Your task to perform on an android device: Open settings Image 0: 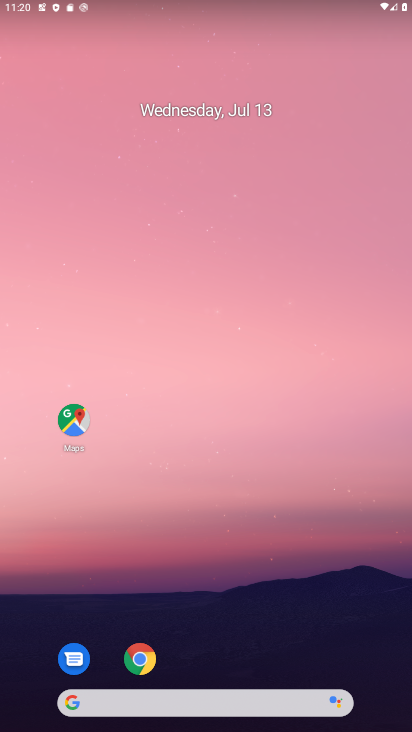
Step 0: drag from (264, 632) to (220, 106)
Your task to perform on an android device: Open settings Image 1: 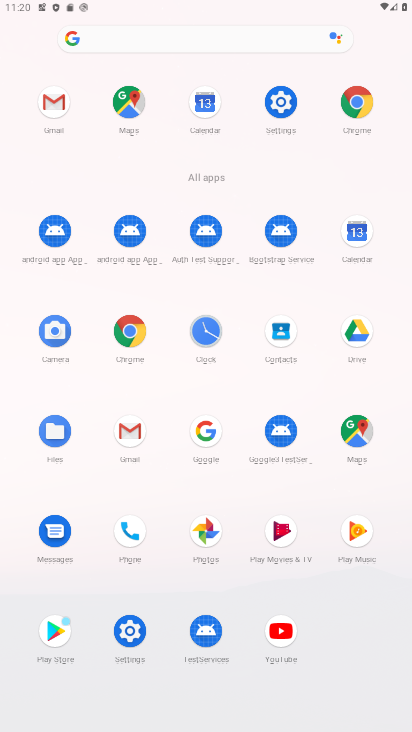
Step 1: click (280, 104)
Your task to perform on an android device: Open settings Image 2: 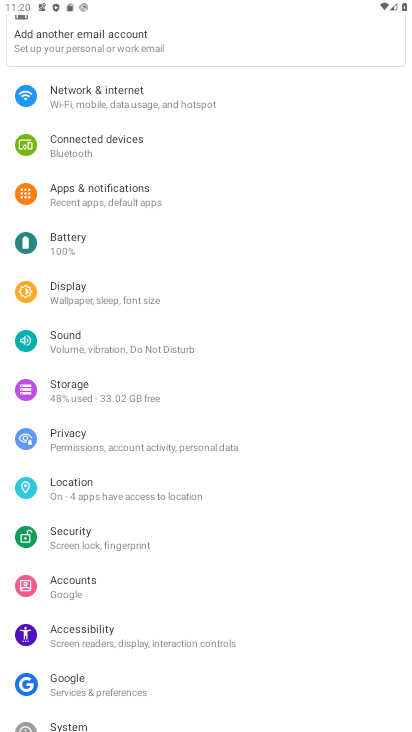
Step 2: task complete